Your task to perform on an android device: Add macbook air to the cart on ebay.com Image 0: 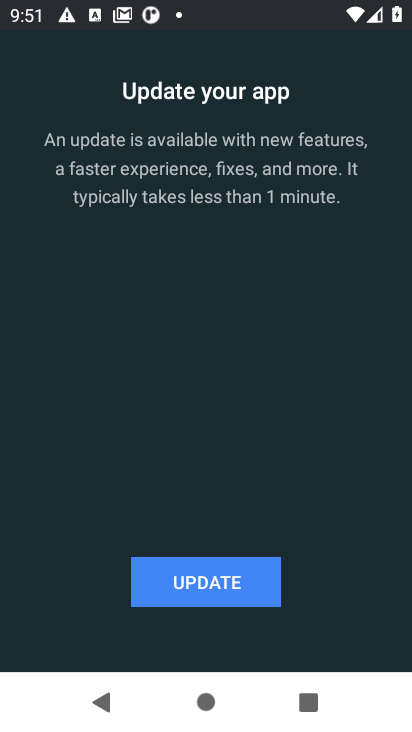
Step 0: press home button
Your task to perform on an android device: Add macbook air to the cart on ebay.com Image 1: 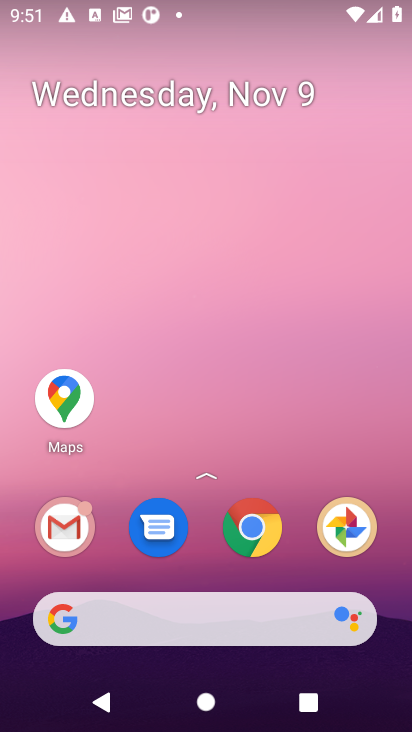
Step 1: click (250, 535)
Your task to perform on an android device: Add macbook air to the cart on ebay.com Image 2: 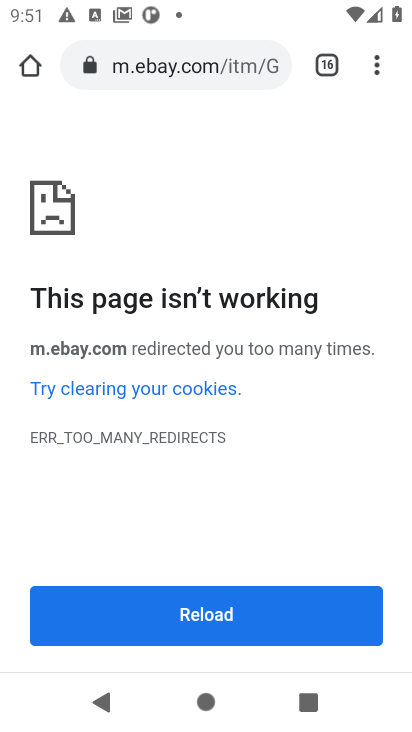
Step 2: click (164, 66)
Your task to perform on an android device: Add macbook air to the cart on ebay.com Image 3: 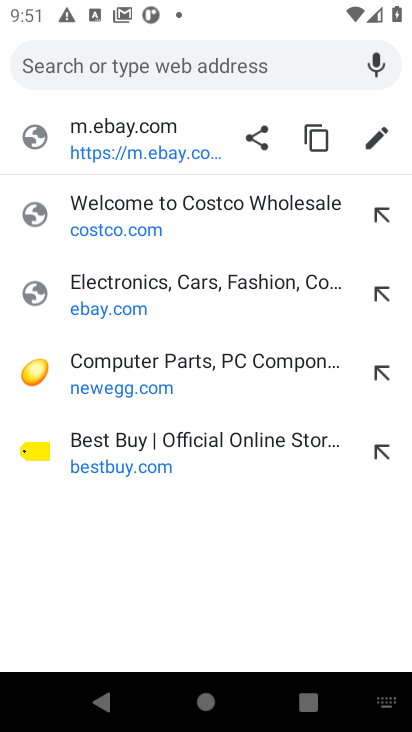
Step 3: click (95, 298)
Your task to perform on an android device: Add macbook air to the cart on ebay.com Image 4: 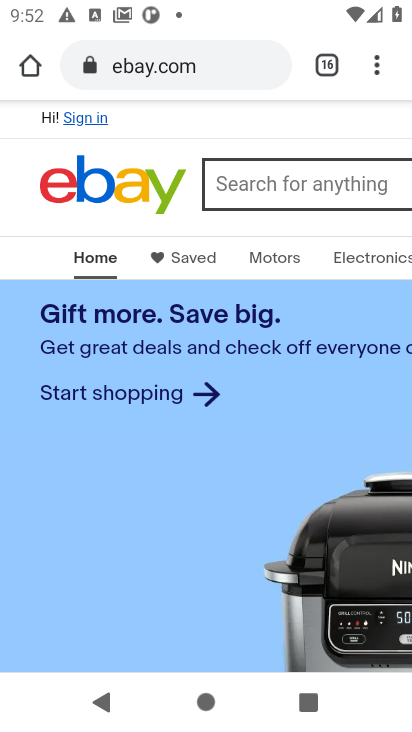
Step 4: click (277, 198)
Your task to perform on an android device: Add macbook air to the cart on ebay.com Image 5: 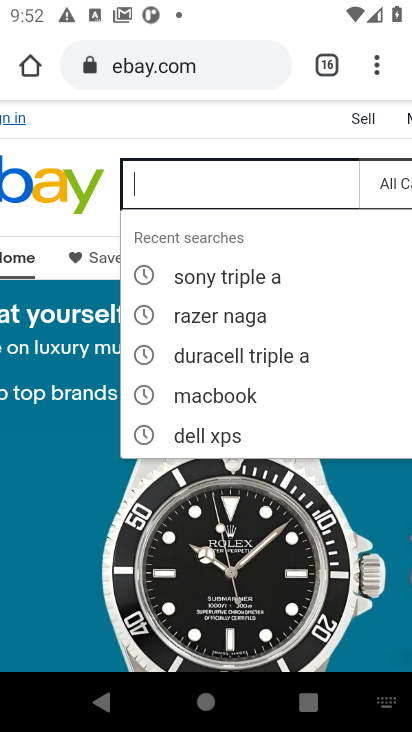
Step 5: type "macbook air"
Your task to perform on an android device: Add macbook air to the cart on ebay.com Image 6: 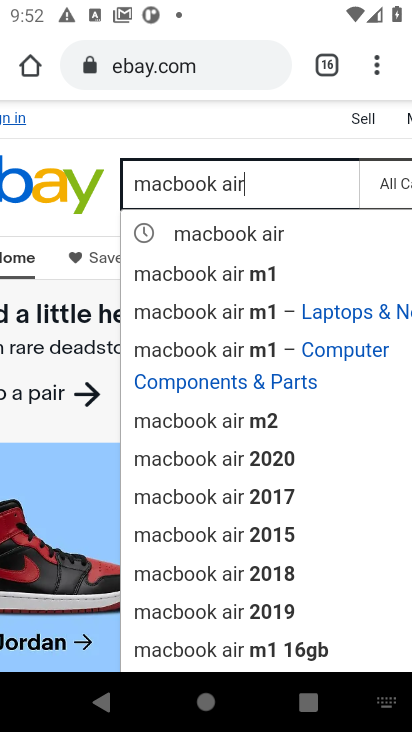
Step 6: click (249, 240)
Your task to perform on an android device: Add macbook air to the cart on ebay.com Image 7: 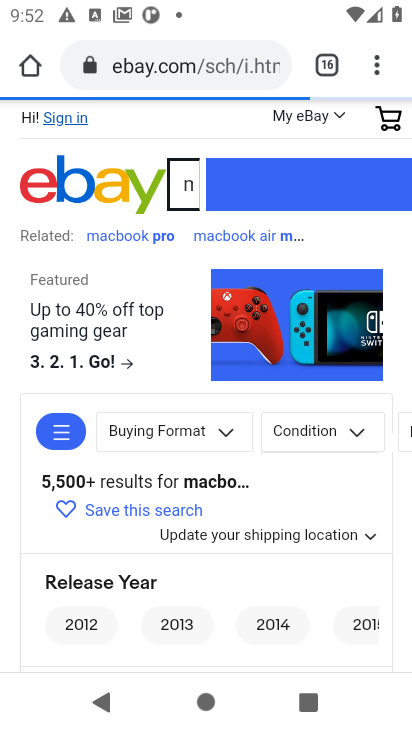
Step 7: drag from (199, 514) to (191, 123)
Your task to perform on an android device: Add macbook air to the cart on ebay.com Image 8: 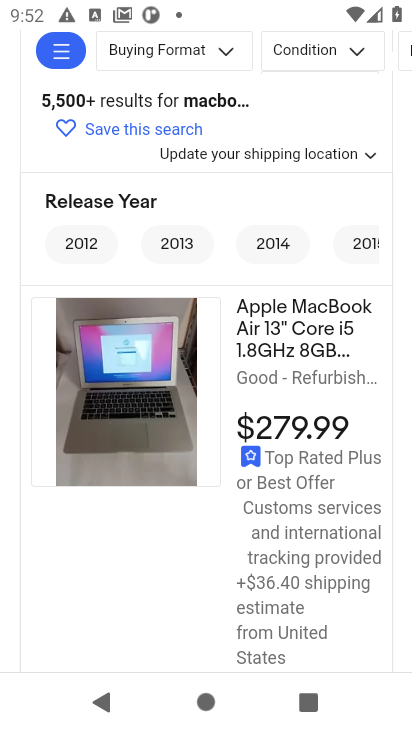
Step 8: click (133, 430)
Your task to perform on an android device: Add macbook air to the cart on ebay.com Image 9: 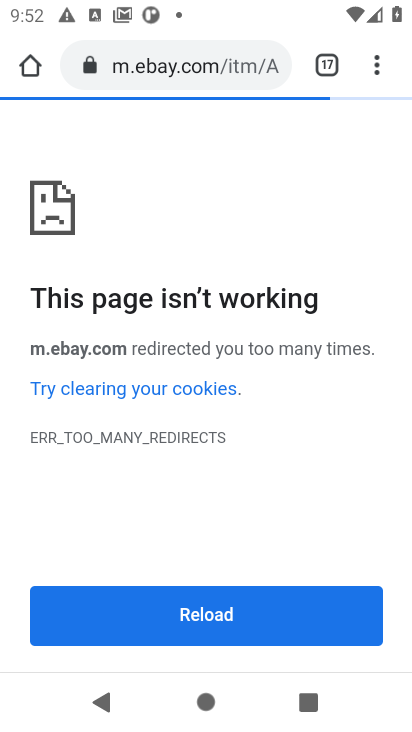
Step 9: task complete